Your task to perform on an android device: turn off priority inbox in the gmail app Image 0: 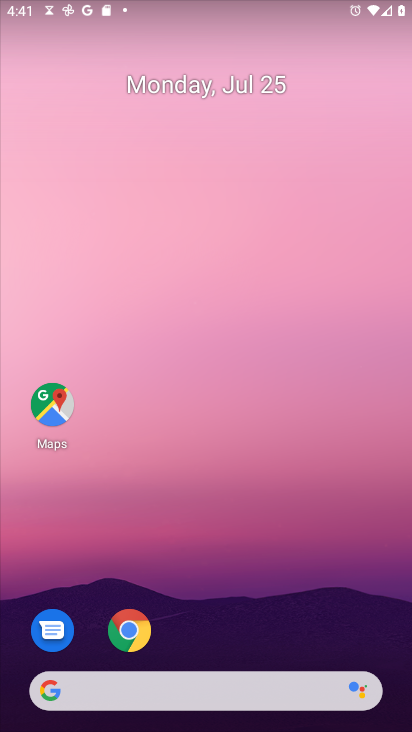
Step 0: drag from (179, 690) to (273, 97)
Your task to perform on an android device: turn off priority inbox in the gmail app Image 1: 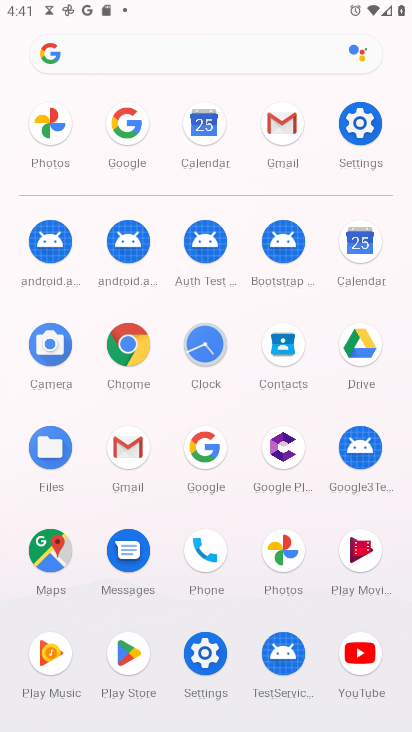
Step 1: click (281, 123)
Your task to perform on an android device: turn off priority inbox in the gmail app Image 2: 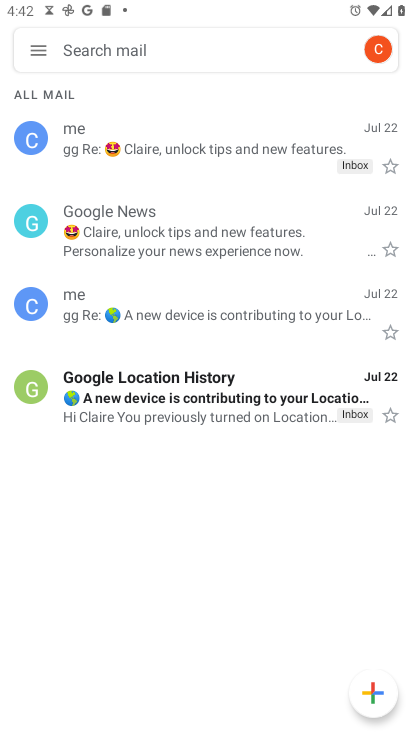
Step 2: click (36, 57)
Your task to perform on an android device: turn off priority inbox in the gmail app Image 3: 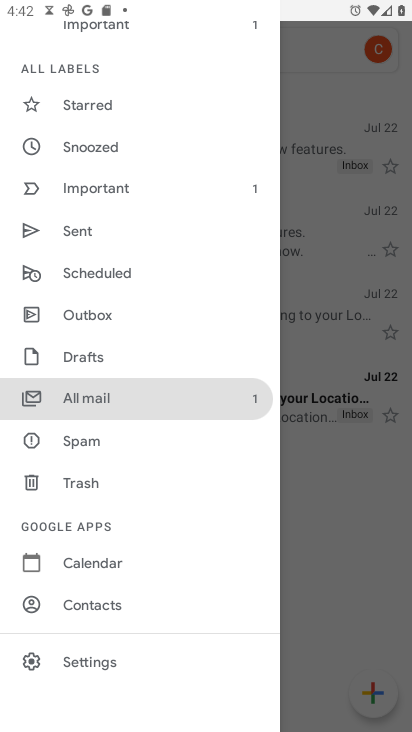
Step 3: click (99, 655)
Your task to perform on an android device: turn off priority inbox in the gmail app Image 4: 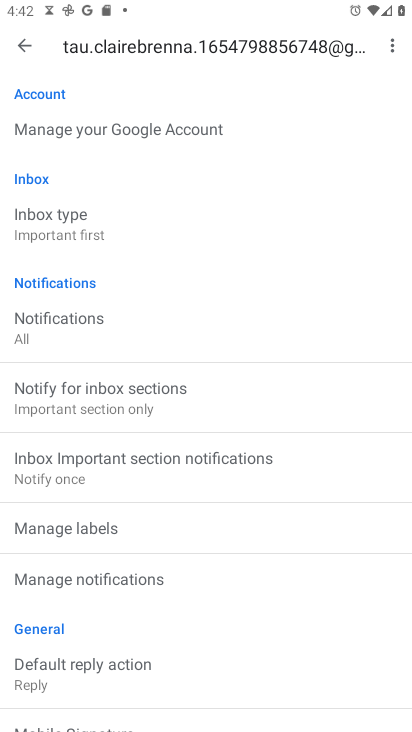
Step 4: task complete